Your task to perform on an android device: Open Google Chrome Image 0: 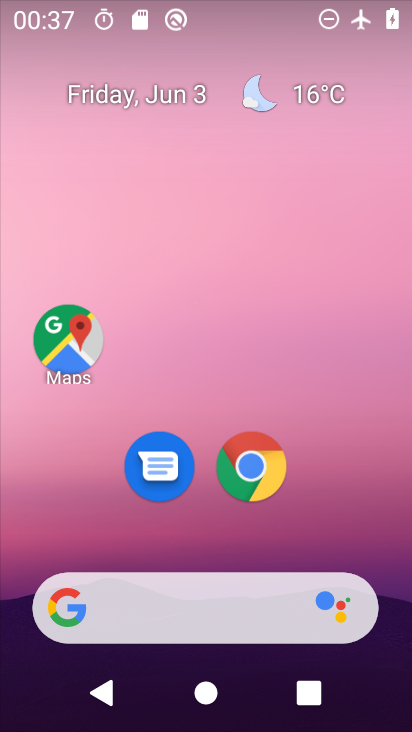
Step 0: click (236, 483)
Your task to perform on an android device: Open Google Chrome Image 1: 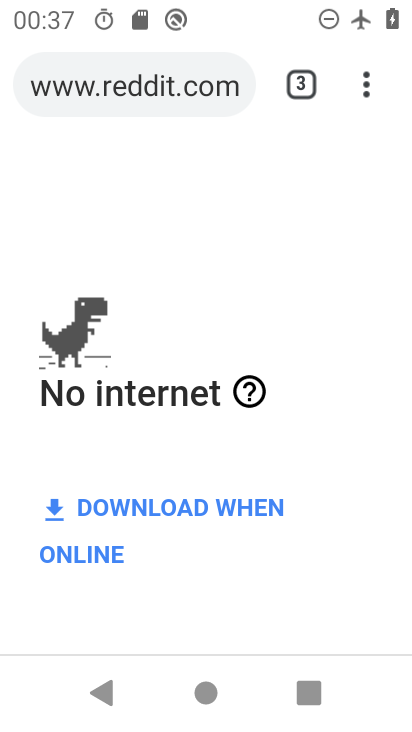
Step 1: task complete